Your task to perform on an android device: Go to ESPN.com Image 0: 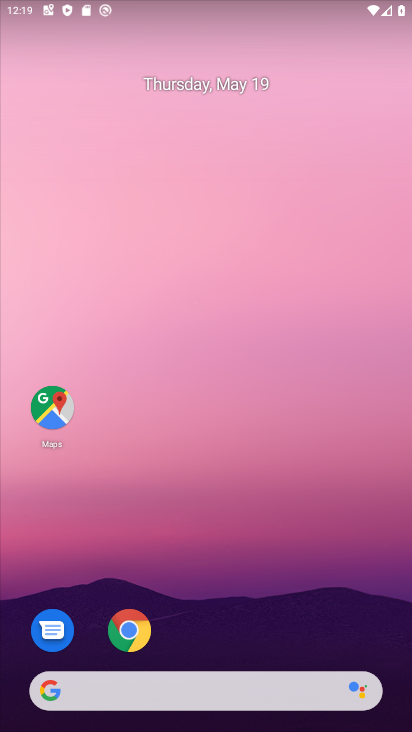
Step 0: drag from (187, 659) to (224, 197)
Your task to perform on an android device: Go to ESPN.com Image 1: 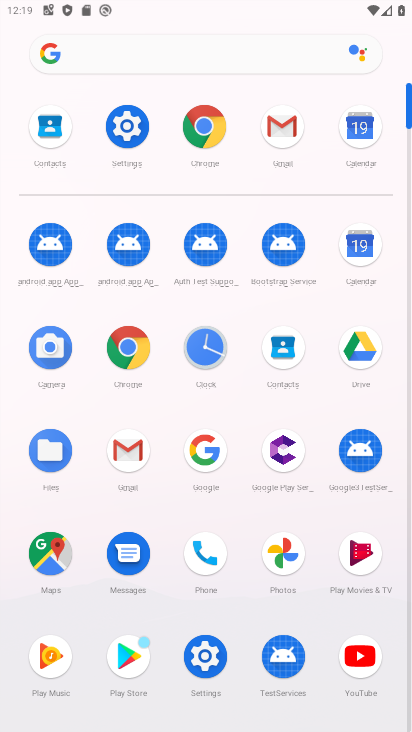
Step 1: click (169, 64)
Your task to perform on an android device: Go to ESPN.com Image 2: 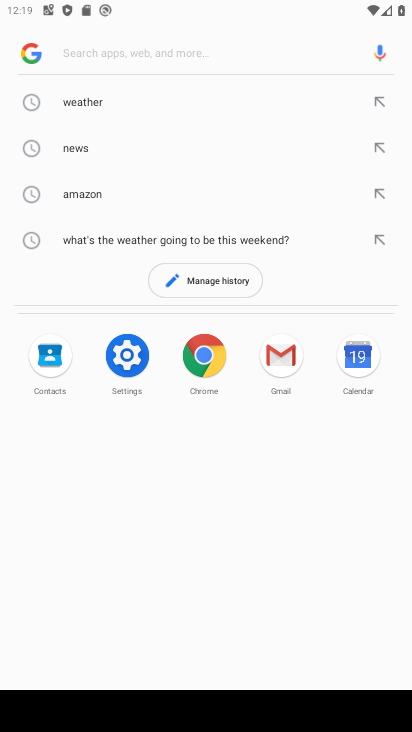
Step 2: click (370, 723)
Your task to perform on an android device: Go to ESPN.com Image 3: 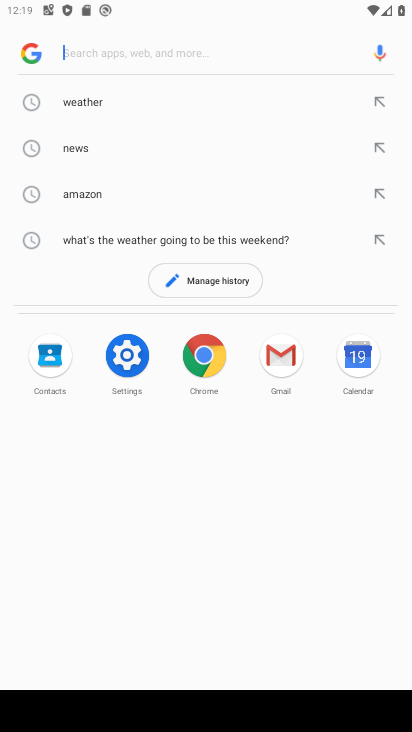
Step 3: type "ESPN.com"
Your task to perform on an android device: Go to ESPN.com Image 4: 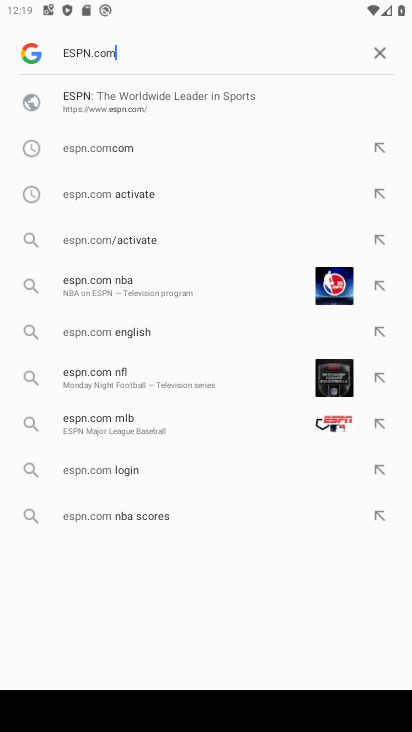
Step 4: type ""
Your task to perform on an android device: Go to ESPN.com Image 5: 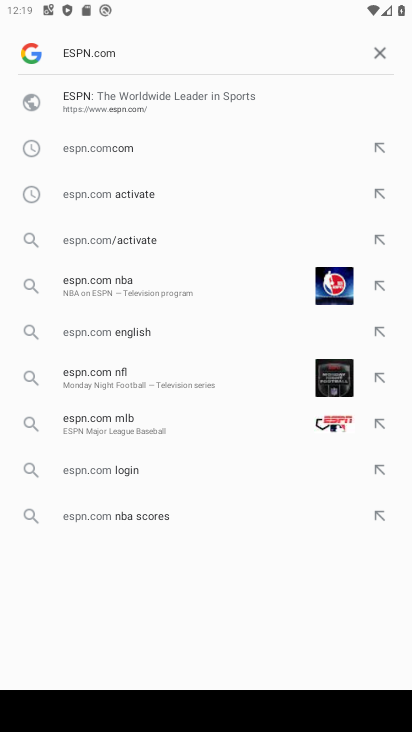
Step 5: click (145, 111)
Your task to perform on an android device: Go to ESPN.com Image 6: 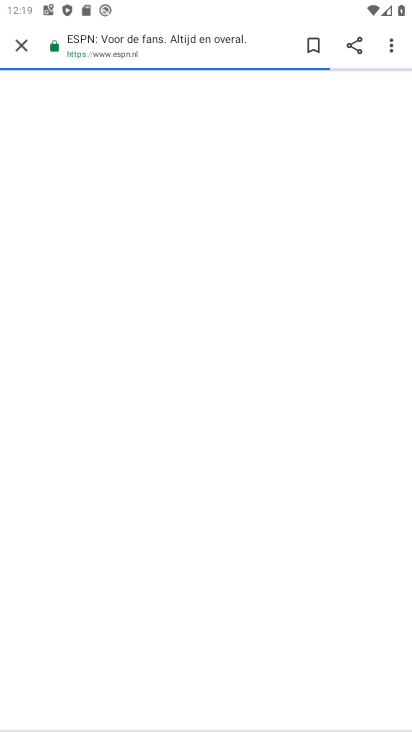
Step 6: task complete